Your task to perform on an android device: What's the weather going to be this weekend? Image 0: 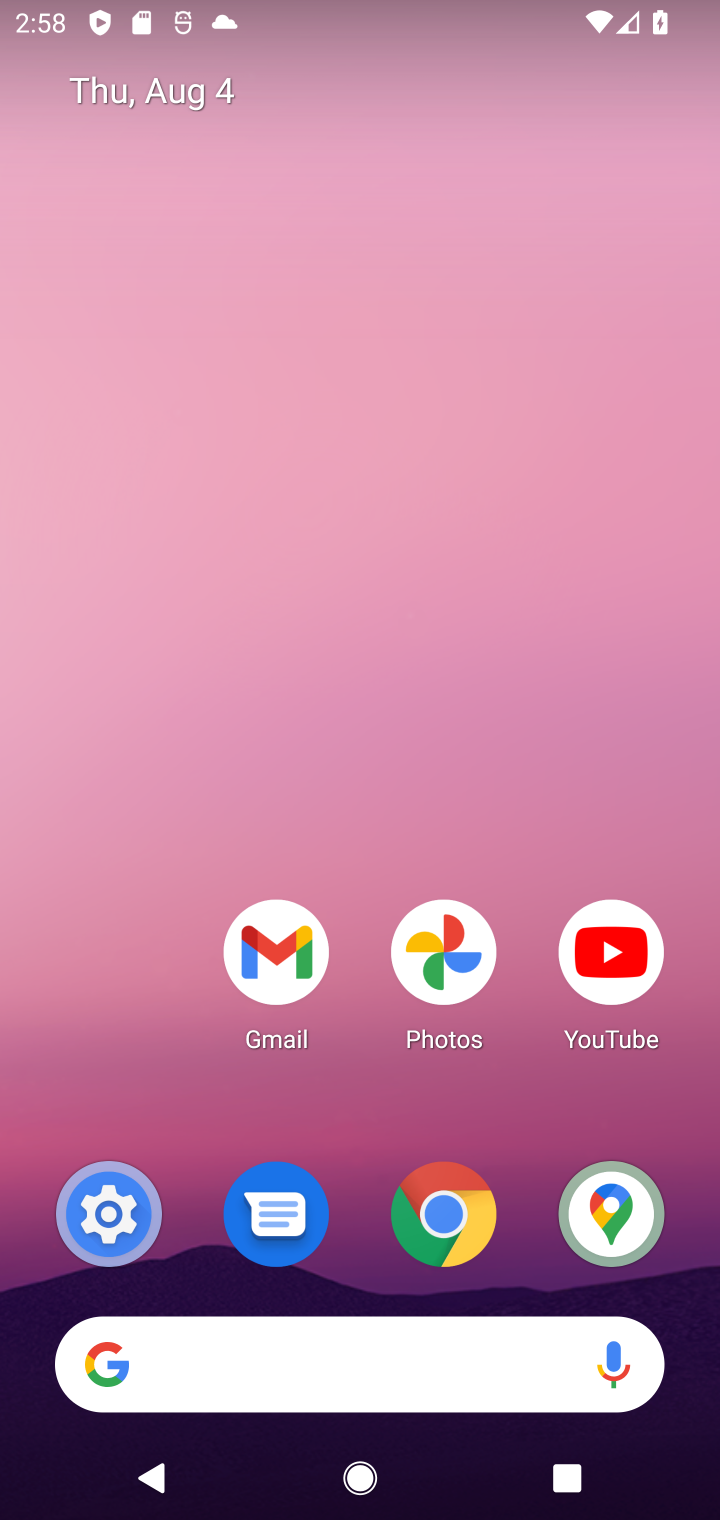
Step 0: drag from (163, 1108) to (24, 97)
Your task to perform on an android device: What's the weather going to be this weekend? Image 1: 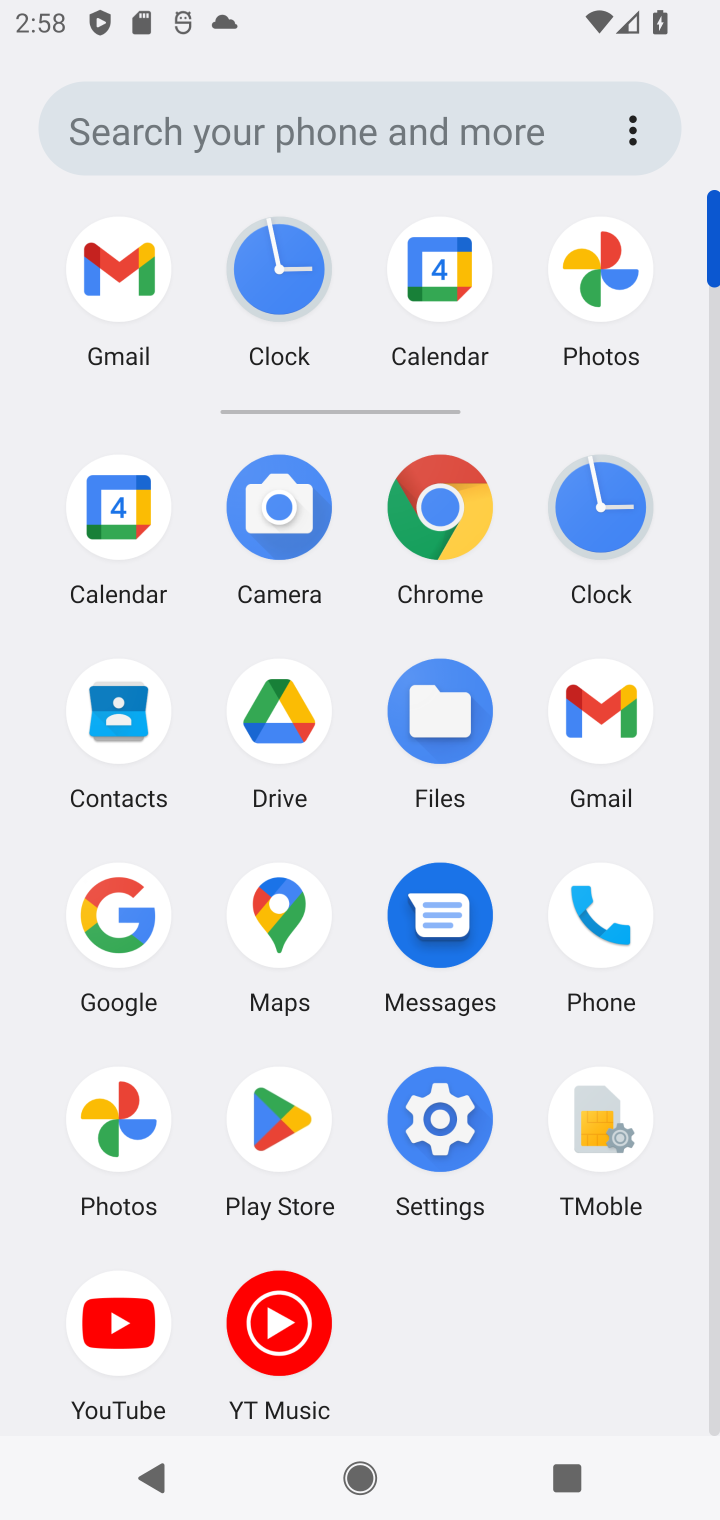
Step 1: click (141, 907)
Your task to perform on an android device: What's the weather going to be this weekend? Image 2: 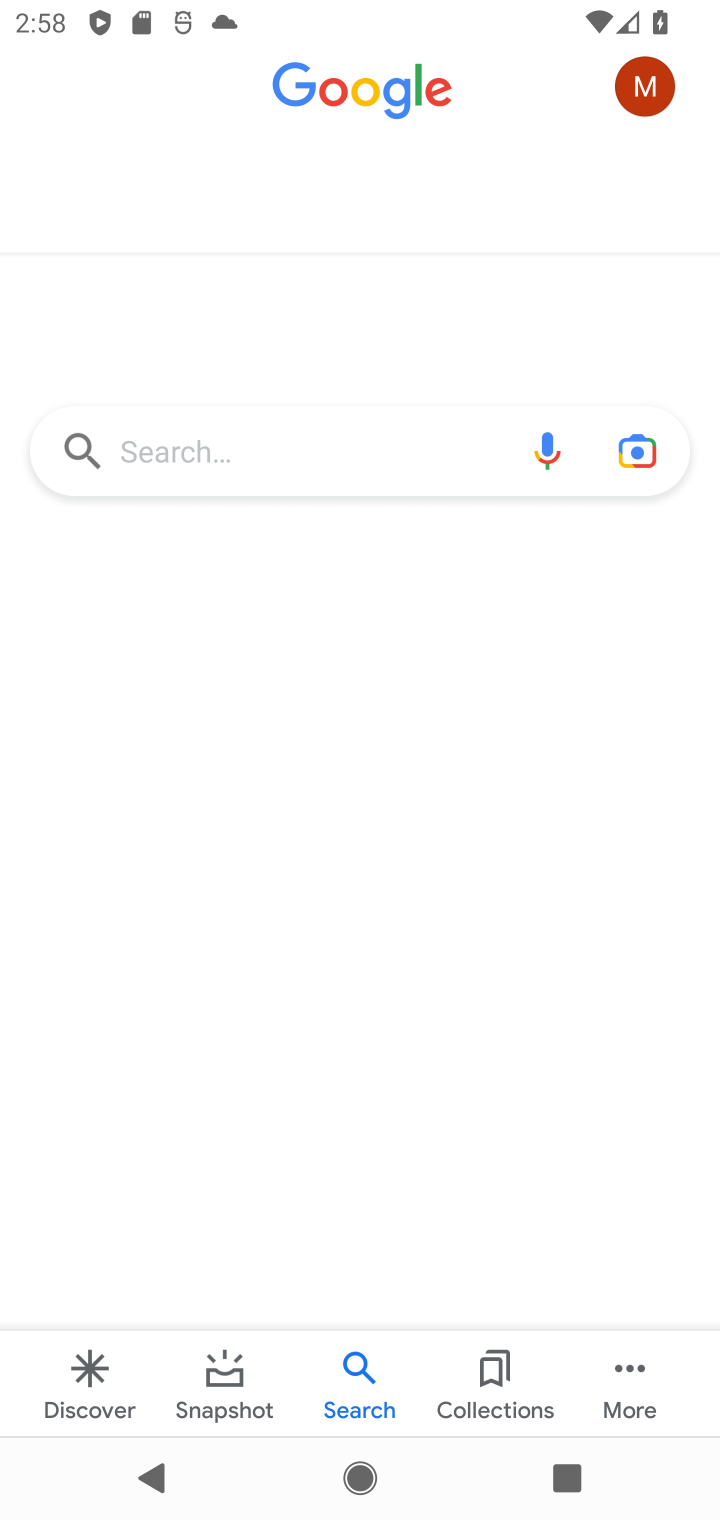
Step 2: click (237, 463)
Your task to perform on an android device: What's the weather going to be this weekend? Image 3: 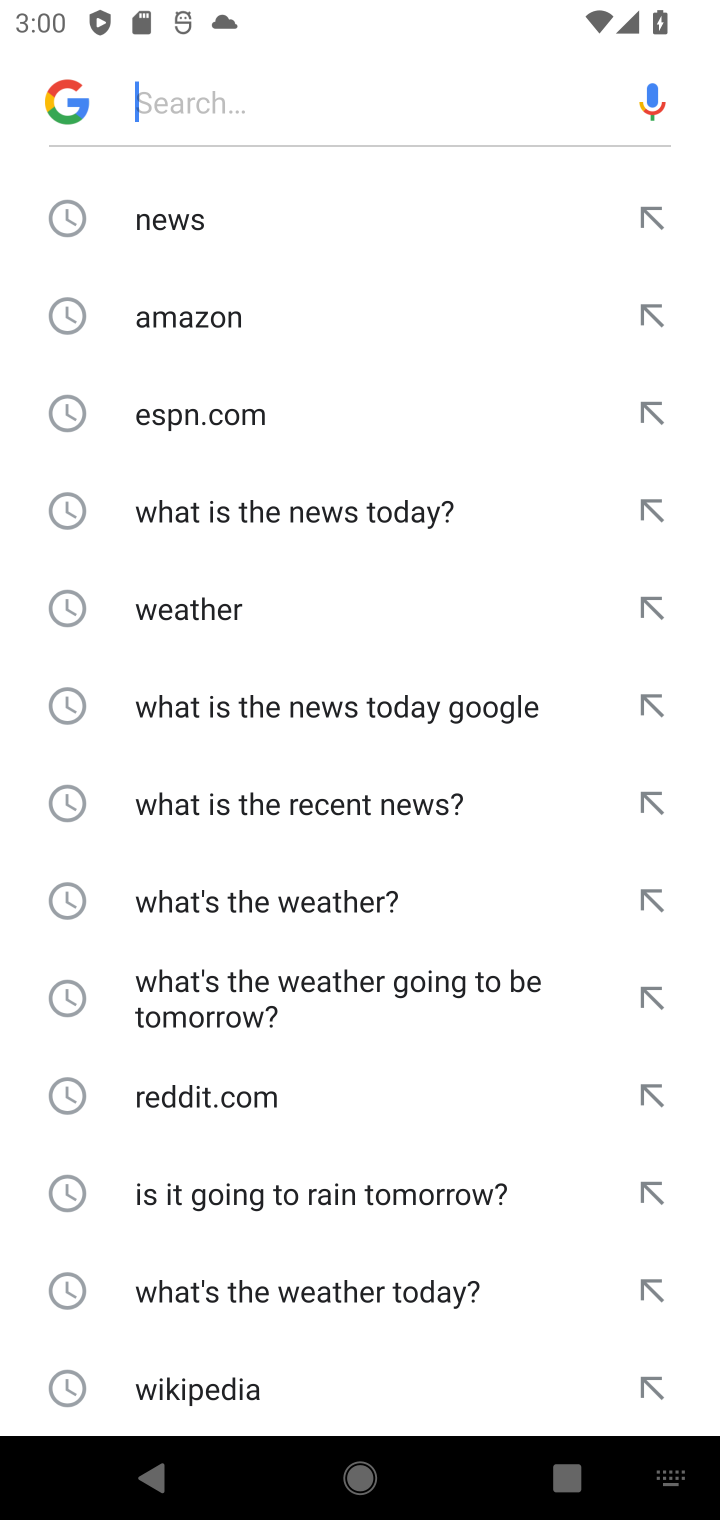
Step 3: type "What's the weather going to be this weekend?"
Your task to perform on an android device: What's the weather going to be this weekend? Image 4: 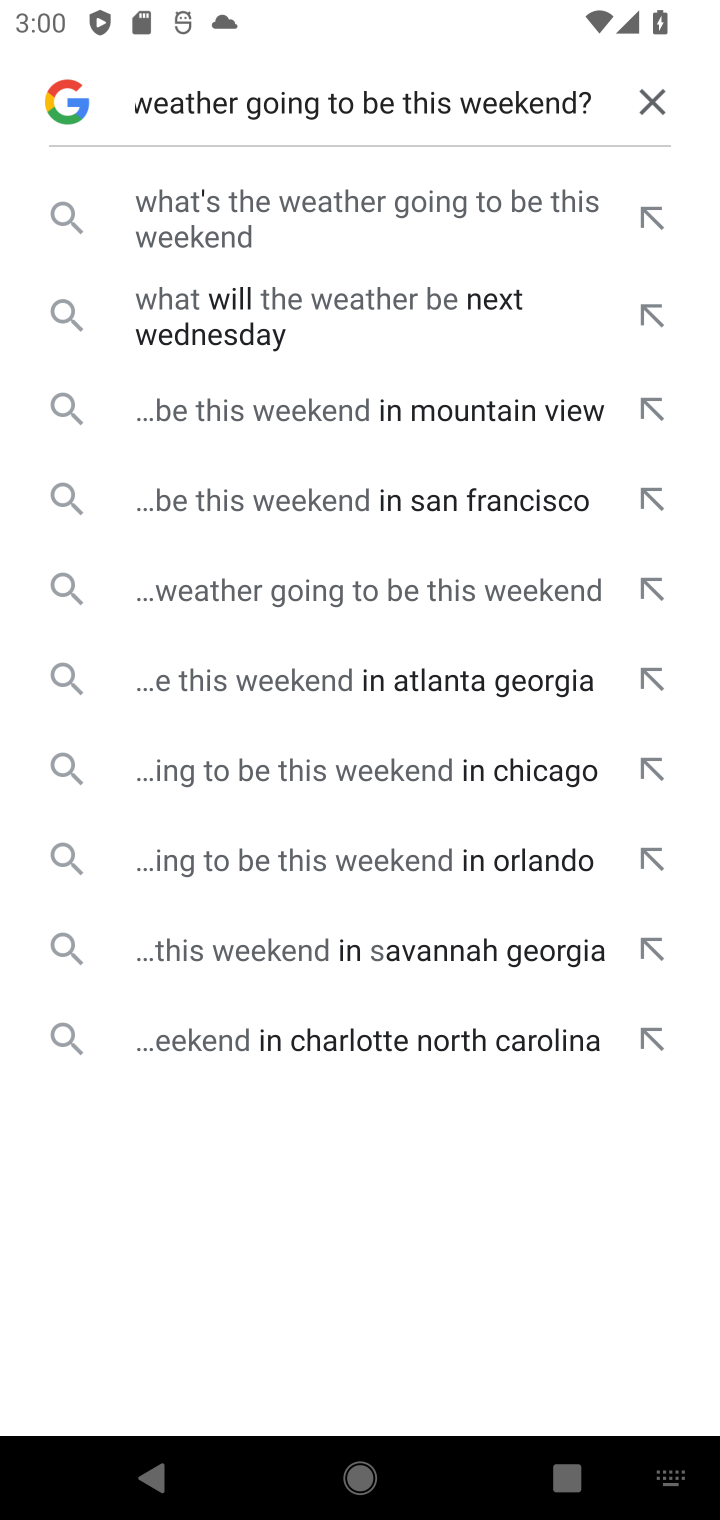
Step 4: click (341, 216)
Your task to perform on an android device: What's the weather going to be this weekend? Image 5: 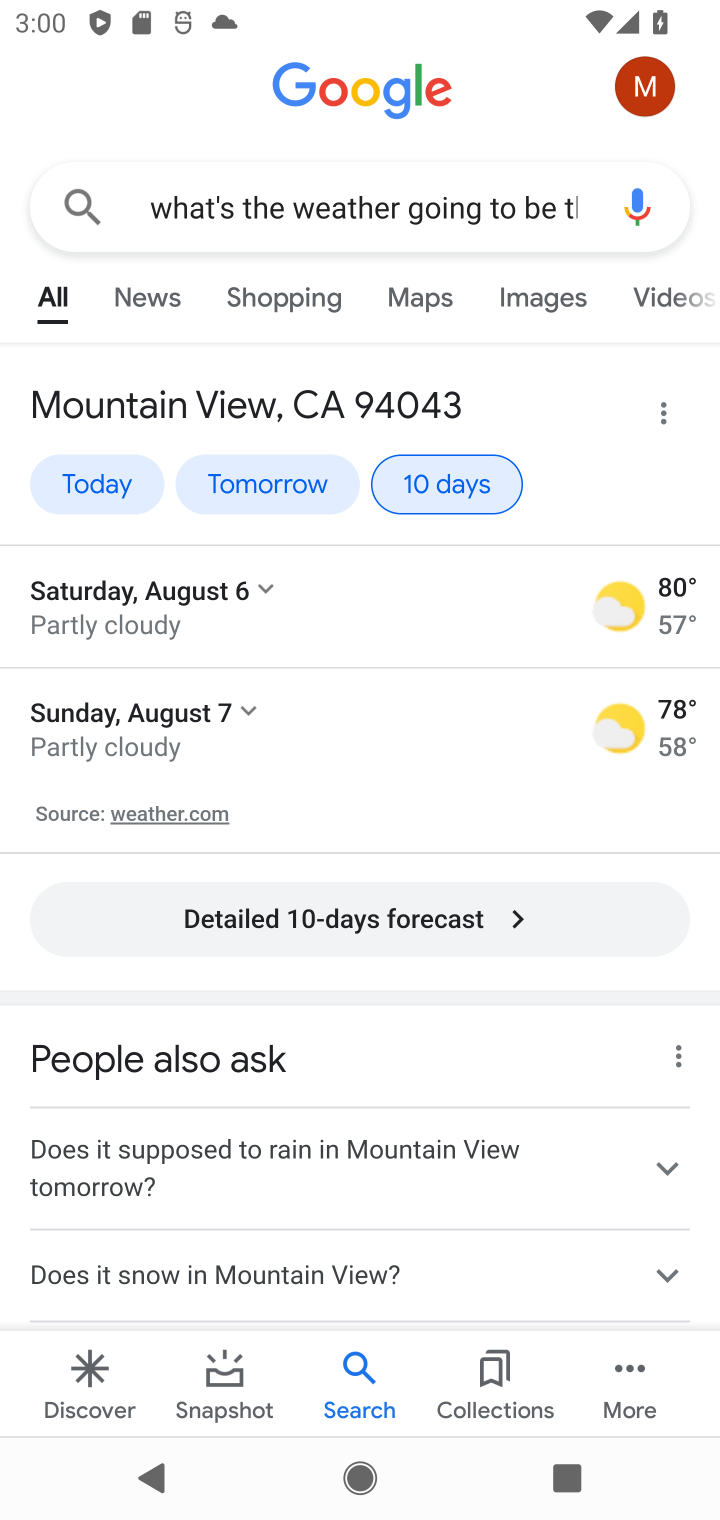
Step 5: task complete